Your task to perform on an android device: open chrome privacy settings Image 0: 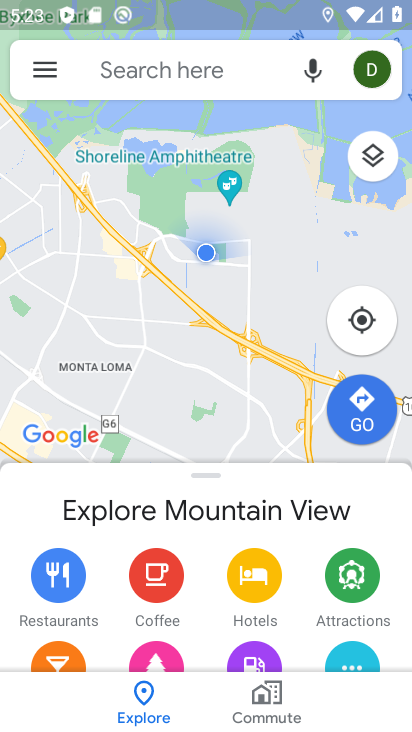
Step 0: press home button
Your task to perform on an android device: open chrome privacy settings Image 1: 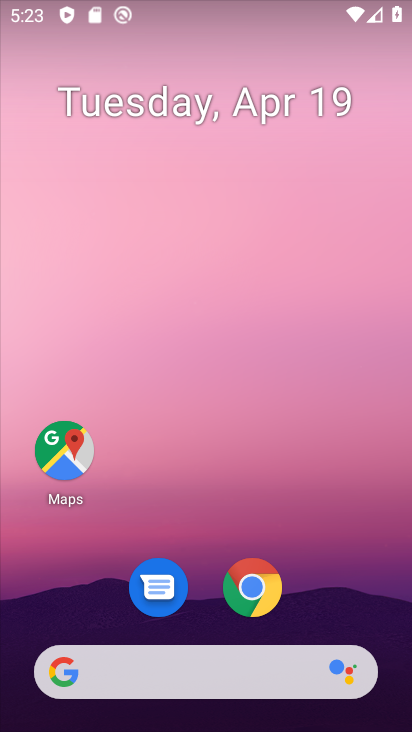
Step 1: click (245, 582)
Your task to perform on an android device: open chrome privacy settings Image 2: 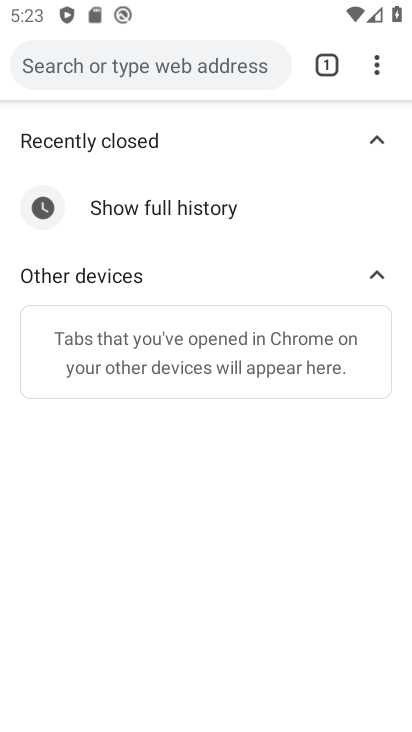
Step 2: click (366, 78)
Your task to perform on an android device: open chrome privacy settings Image 3: 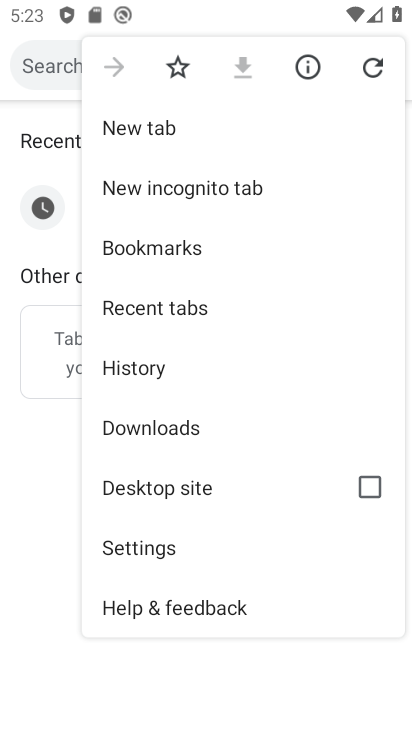
Step 3: click (147, 556)
Your task to perform on an android device: open chrome privacy settings Image 4: 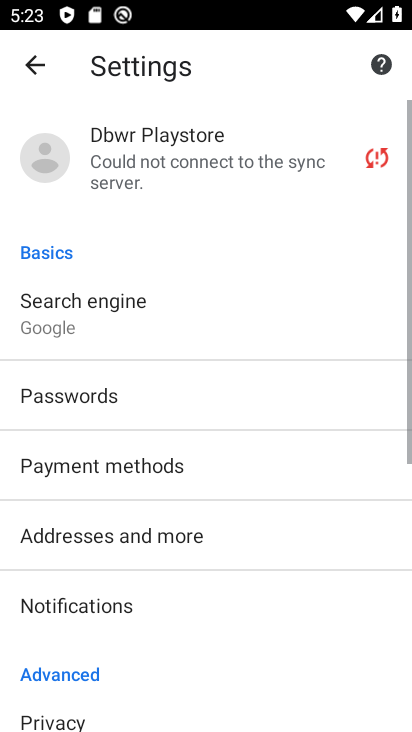
Step 4: drag from (147, 556) to (163, 184)
Your task to perform on an android device: open chrome privacy settings Image 5: 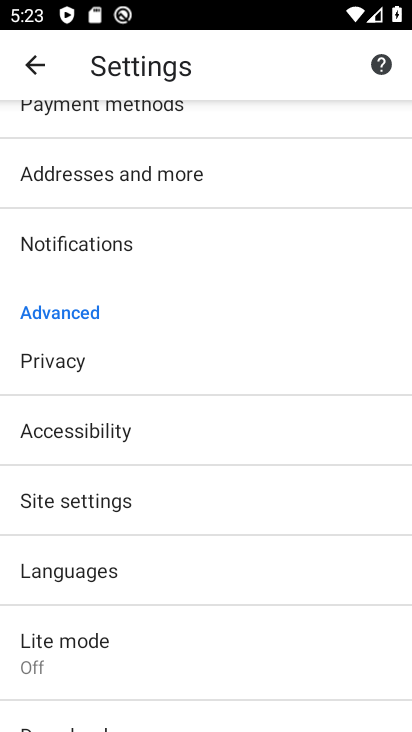
Step 5: click (108, 350)
Your task to perform on an android device: open chrome privacy settings Image 6: 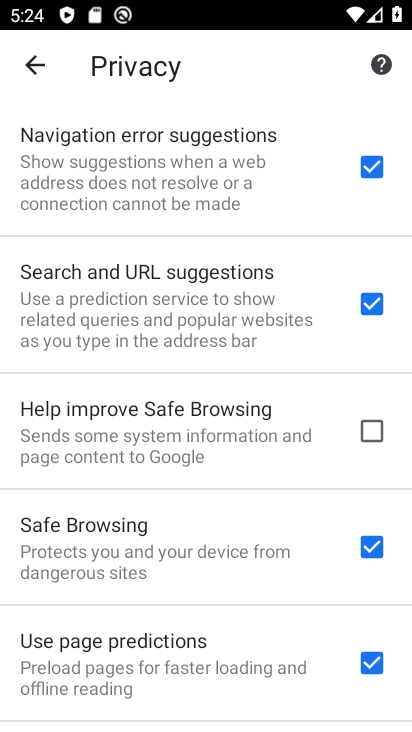
Step 6: task complete